Your task to perform on an android device: Show me productivity apps on the Play Store Image 0: 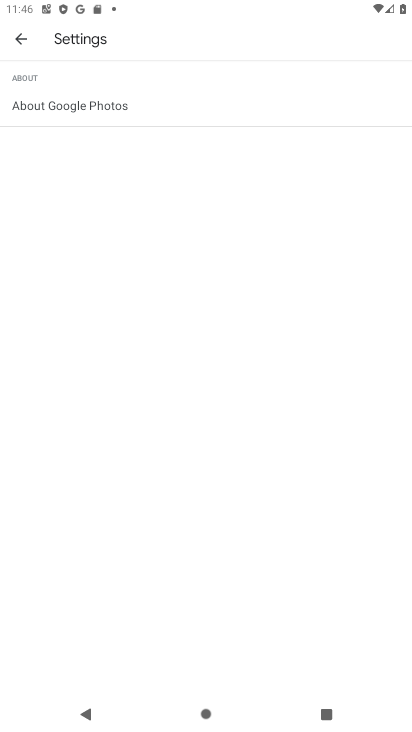
Step 0: press home button
Your task to perform on an android device: Show me productivity apps on the Play Store Image 1: 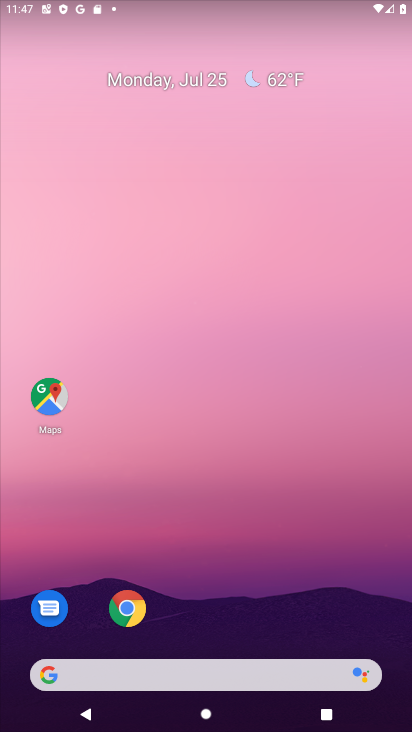
Step 1: drag from (266, 544) to (273, 203)
Your task to perform on an android device: Show me productivity apps on the Play Store Image 2: 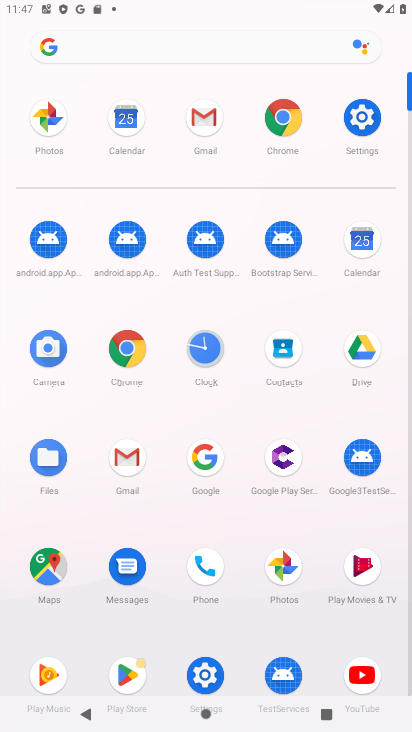
Step 2: click (124, 674)
Your task to perform on an android device: Show me productivity apps on the Play Store Image 3: 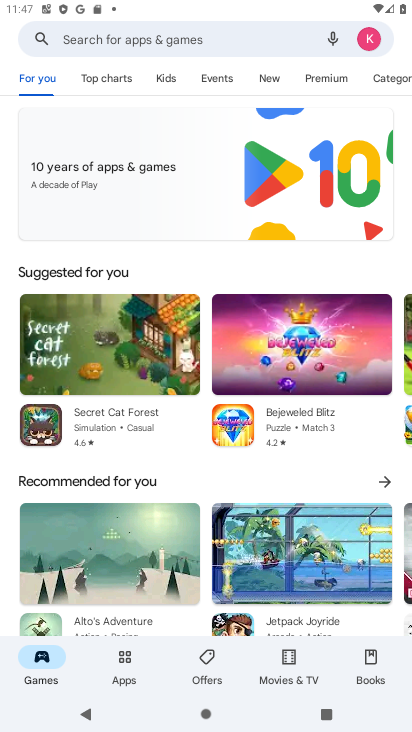
Step 3: task complete